Your task to perform on an android device: Open Amazon Image 0: 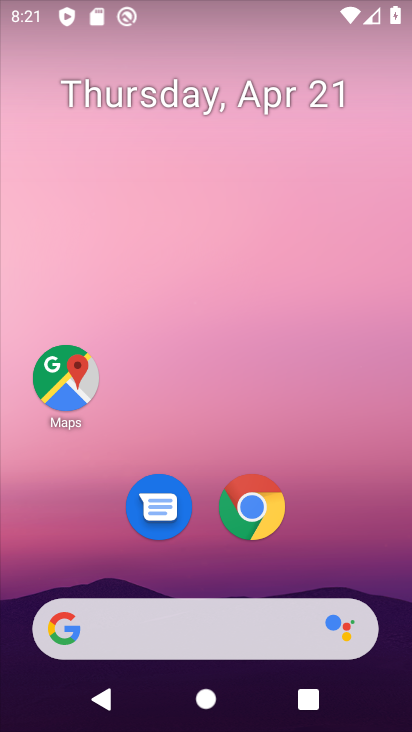
Step 0: drag from (369, 541) to (341, 132)
Your task to perform on an android device: Open Amazon Image 1: 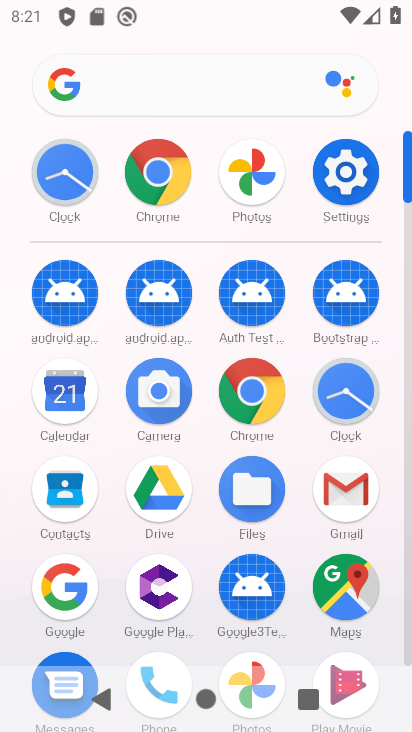
Step 1: drag from (294, 530) to (298, 251)
Your task to perform on an android device: Open Amazon Image 2: 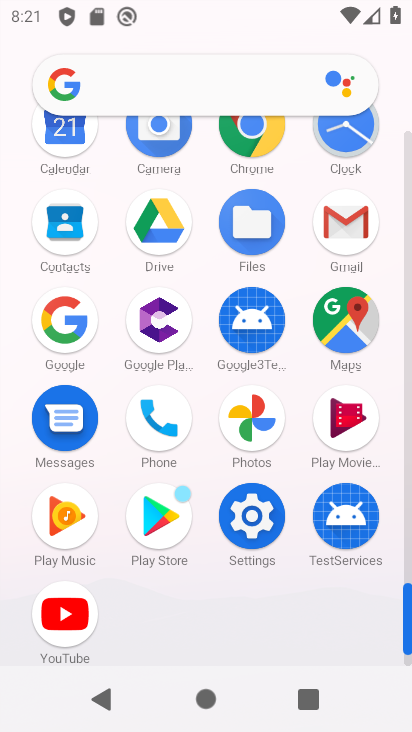
Step 2: click (249, 147)
Your task to perform on an android device: Open Amazon Image 3: 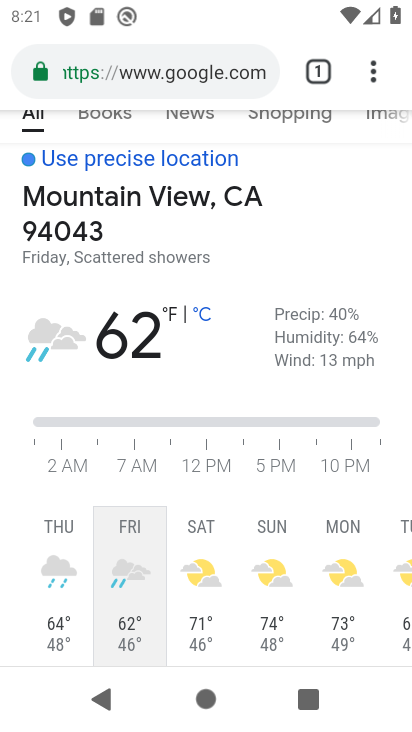
Step 3: click (233, 83)
Your task to perform on an android device: Open Amazon Image 4: 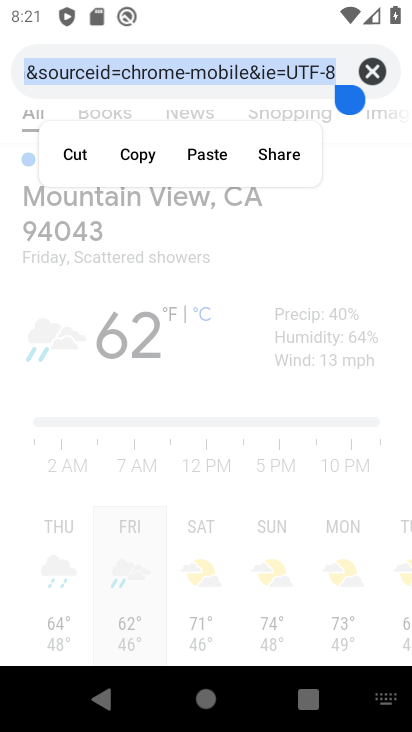
Step 4: click (368, 74)
Your task to perform on an android device: Open Amazon Image 5: 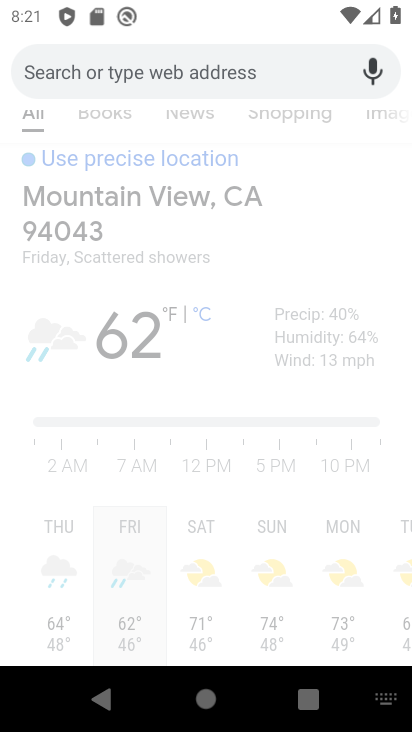
Step 5: type "amazon"
Your task to perform on an android device: Open Amazon Image 6: 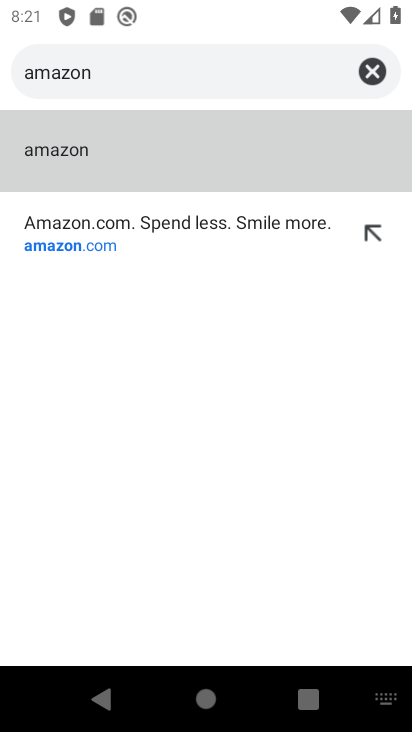
Step 6: click (153, 235)
Your task to perform on an android device: Open Amazon Image 7: 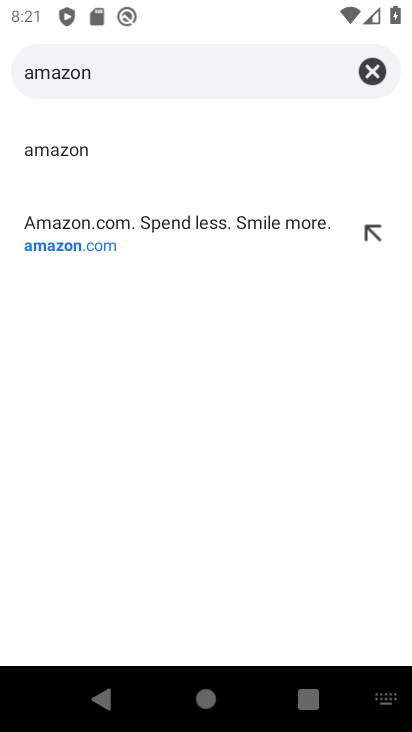
Step 7: click (152, 226)
Your task to perform on an android device: Open Amazon Image 8: 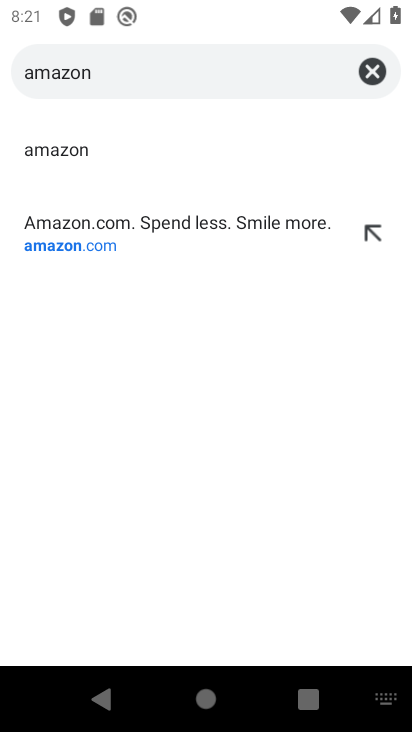
Step 8: click (130, 224)
Your task to perform on an android device: Open Amazon Image 9: 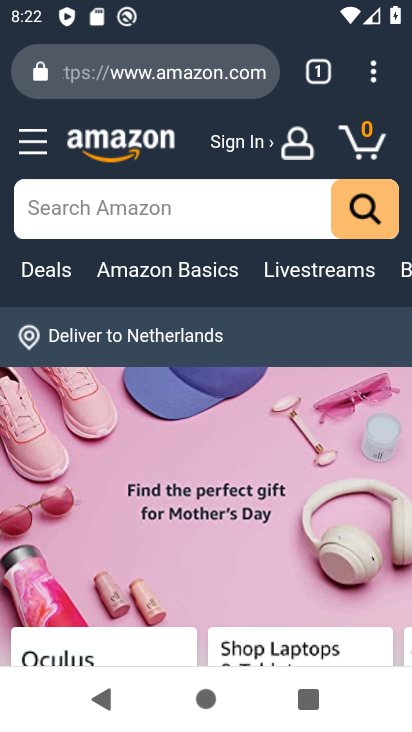
Step 9: task complete